Your task to perform on an android device: open sync settings in chrome Image 0: 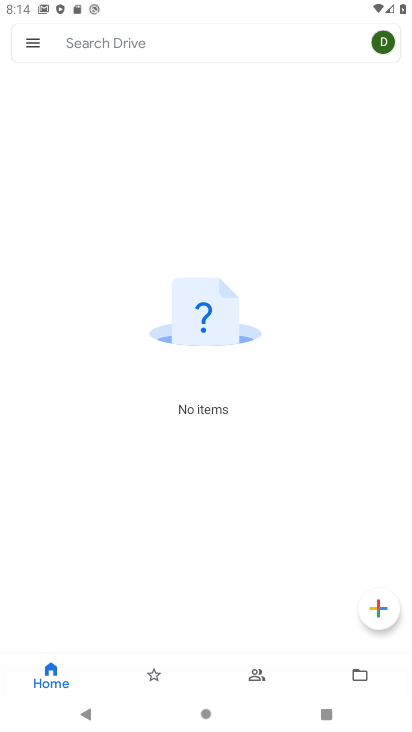
Step 0: press home button
Your task to perform on an android device: open sync settings in chrome Image 1: 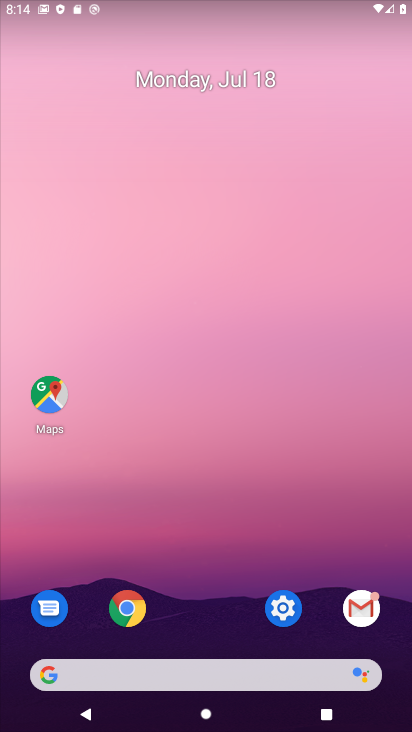
Step 1: click (125, 607)
Your task to perform on an android device: open sync settings in chrome Image 2: 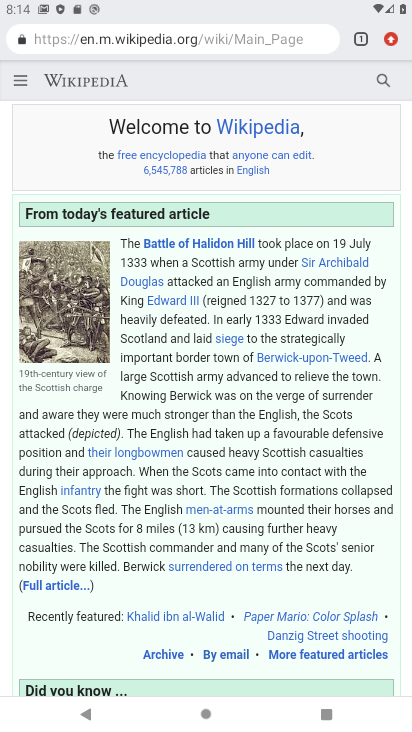
Step 2: click (389, 39)
Your task to perform on an android device: open sync settings in chrome Image 3: 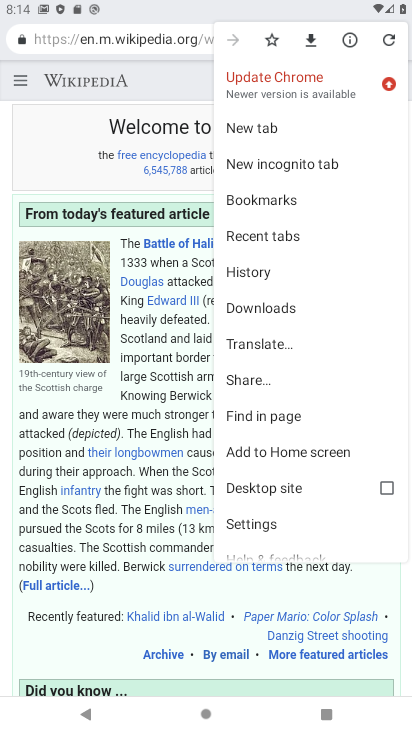
Step 3: click (251, 520)
Your task to perform on an android device: open sync settings in chrome Image 4: 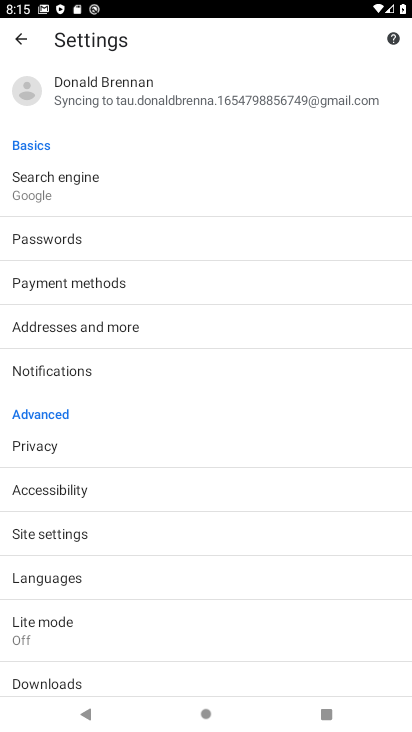
Step 4: click (80, 534)
Your task to perform on an android device: open sync settings in chrome Image 5: 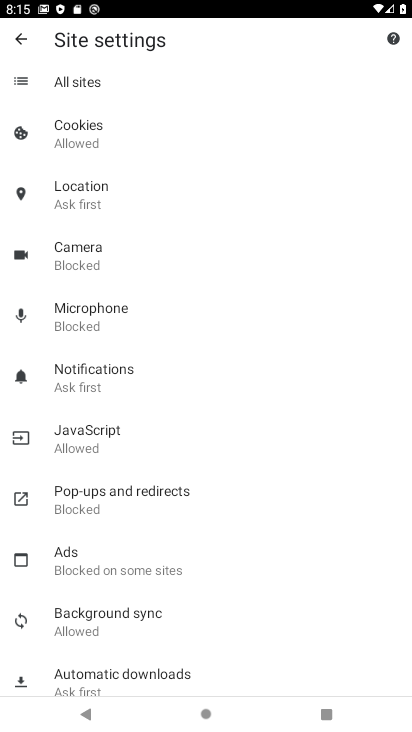
Step 5: click (107, 614)
Your task to perform on an android device: open sync settings in chrome Image 6: 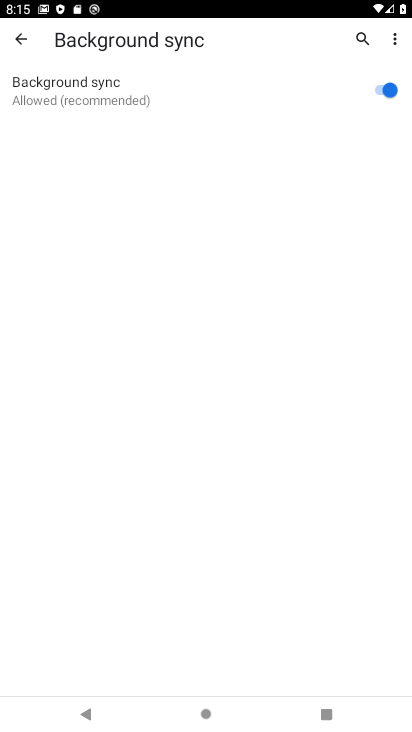
Step 6: task complete